Your task to perform on an android device: Open eBay Image 0: 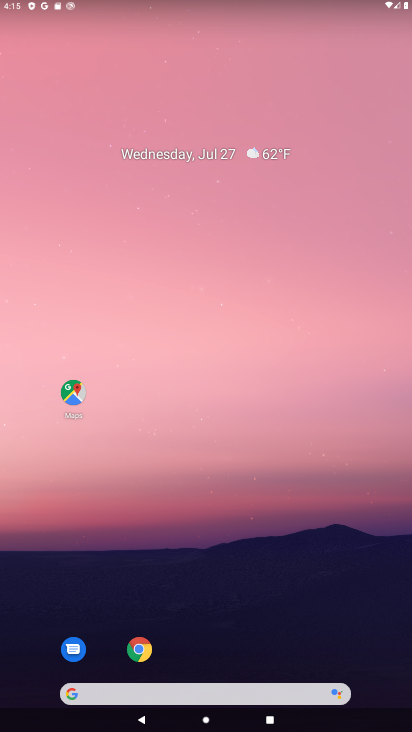
Step 0: click (253, 179)
Your task to perform on an android device: Open eBay Image 1: 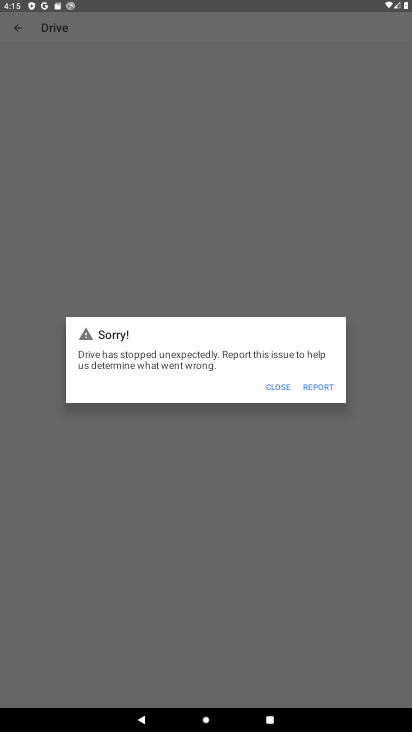
Step 1: click (253, 627)
Your task to perform on an android device: Open eBay Image 2: 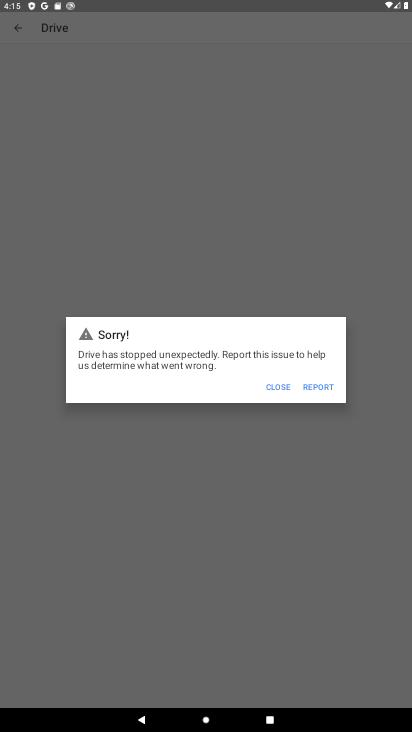
Step 2: press home button
Your task to perform on an android device: Open eBay Image 3: 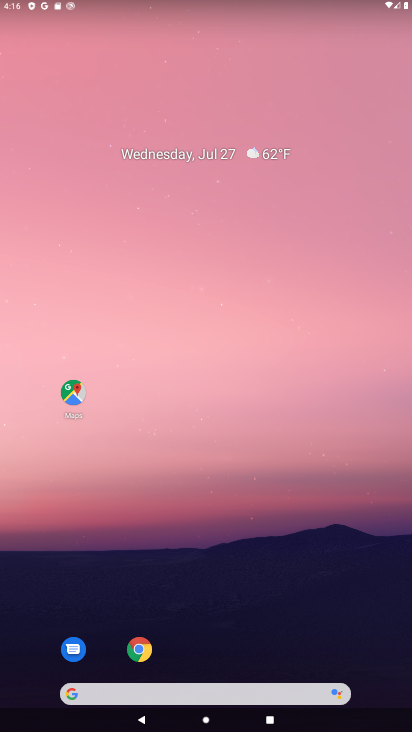
Step 3: click (141, 656)
Your task to perform on an android device: Open eBay Image 4: 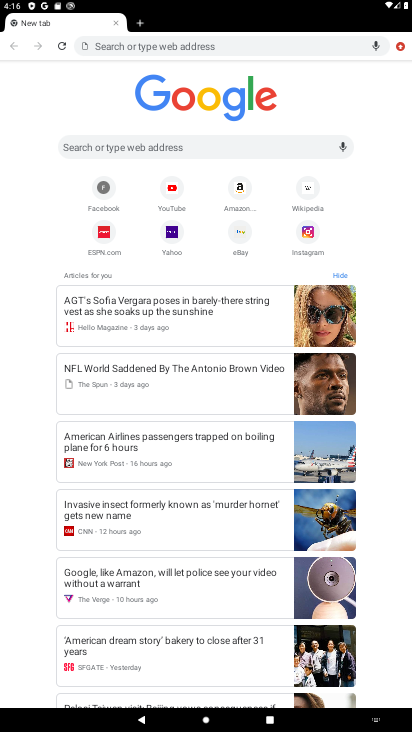
Step 4: click (238, 228)
Your task to perform on an android device: Open eBay Image 5: 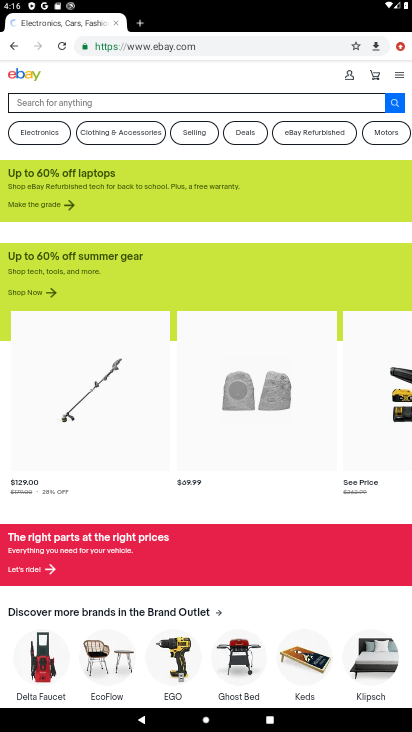
Step 5: task complete